Your task to perform on an android device: toggle show notifications on the lock screen Image 0: 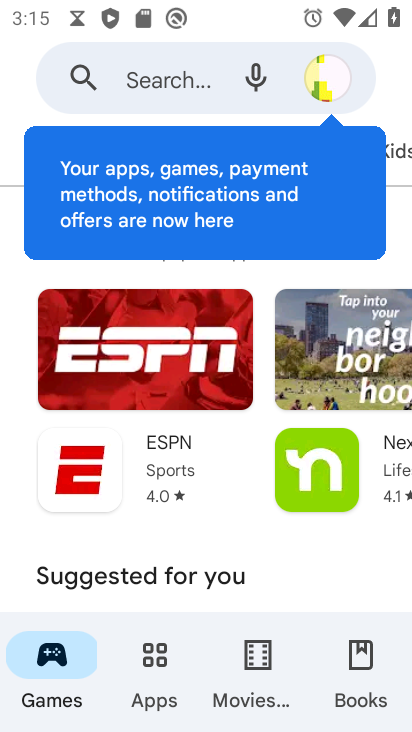
Step 0: press home button
Your task to perform on an android device: toggle show notifications on the lock screen Image 1: 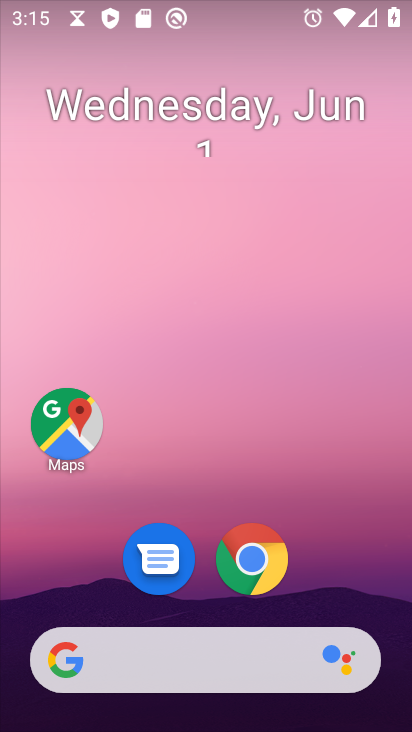
Step 1: drag from (341, 592) to (301, 57)
Your task to perform on an android device: toggle show notifications on the lock screen Image 2: 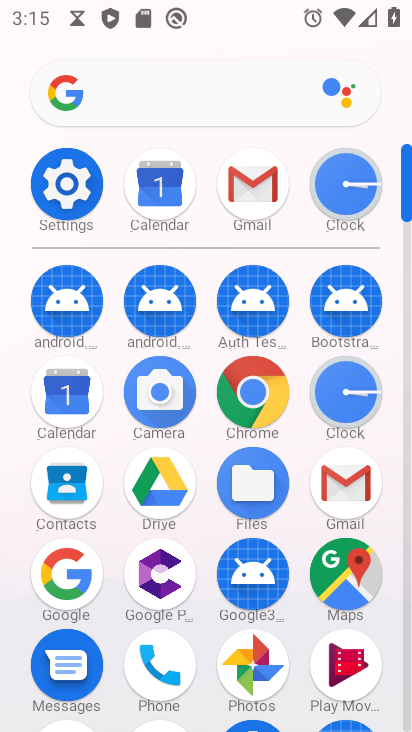
Step 2: click (56, 192)
Your task to perform on an android device: toggle show notifications on the lock screen Image 3: 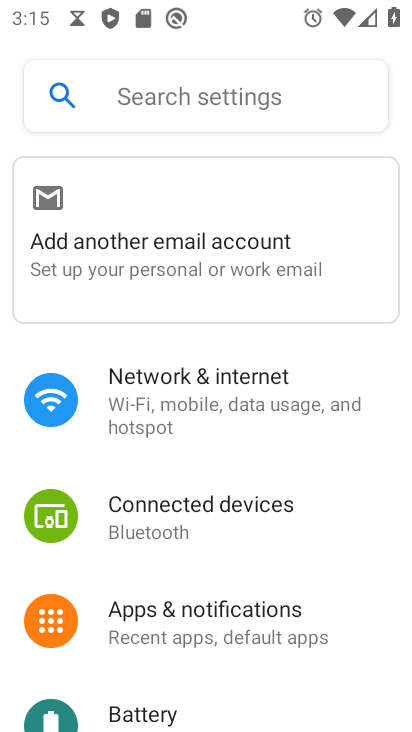
Step 3: click (161, 634)
Your task to perform on an android device: toggle show notifications on the lock screen Image 4: 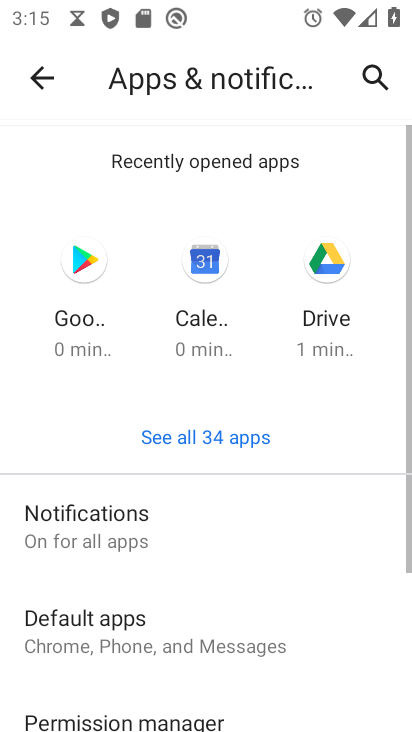
Step 4: click (147, 544)
Your task to perform on an android device: toggle show notifications on the lock screen Image 5: 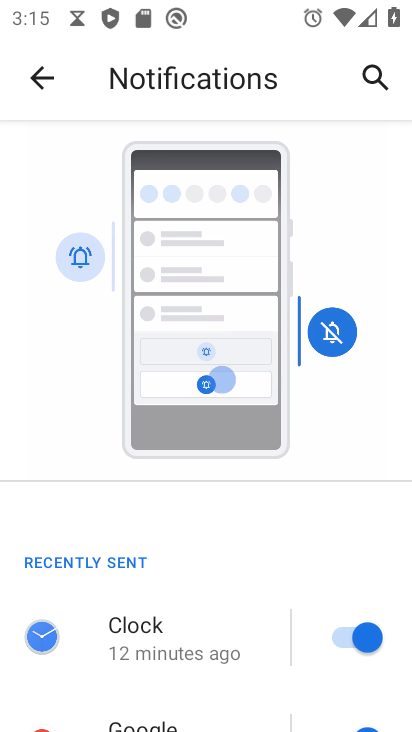
Step 5: drag from (173, 589) to (203, 178)
Your task to perform on an android device: toggle show notifications on the lock screen Image 6: 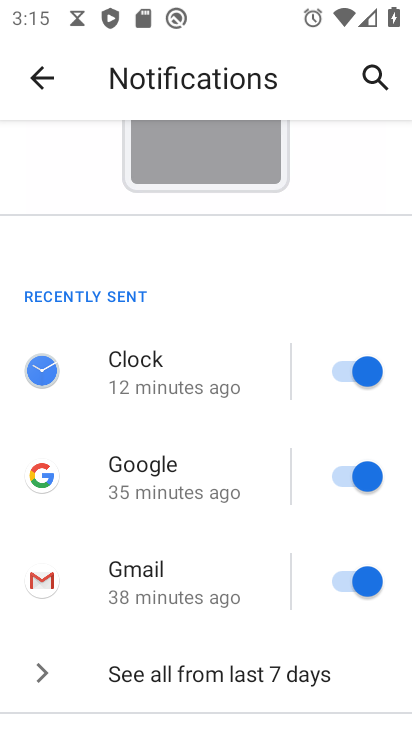
Step 6: drag from (134, 650) to (129, 136)
Your task to perform on an android device: toggle show notifications on the lock screen Image 7: 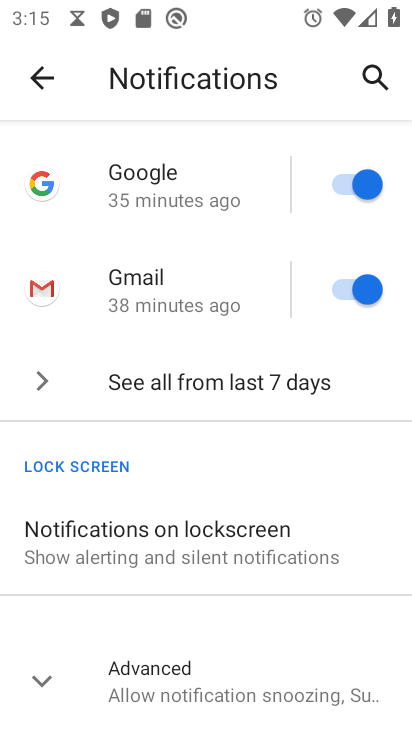
Step 7: click (96, 558)
Your task to perform on an android device: toggle show notifications on the lock screen Image 8: 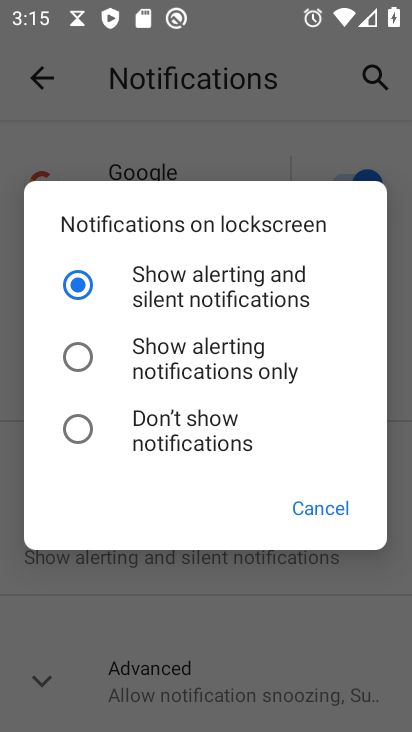
Step 8: click (150, 379)
Your task to perform on an android device: toggle show notifications on the lock screen Image 9: 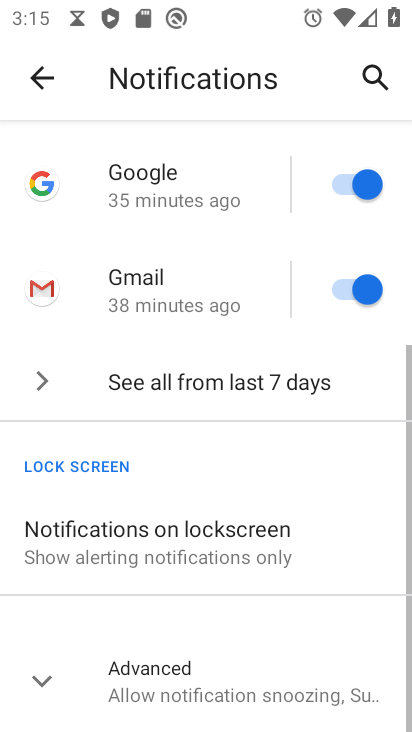
Step 9: task complete